Your task to perform on an android device: Open the phone app and click the voicemail tab. Image 0: 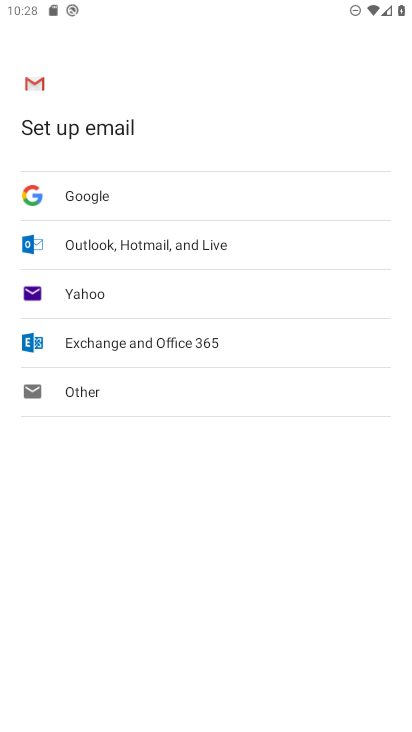
Step 0: press home button
Your task to perform on an android device: Open the phone app and click the voicemail tab. Image 1: 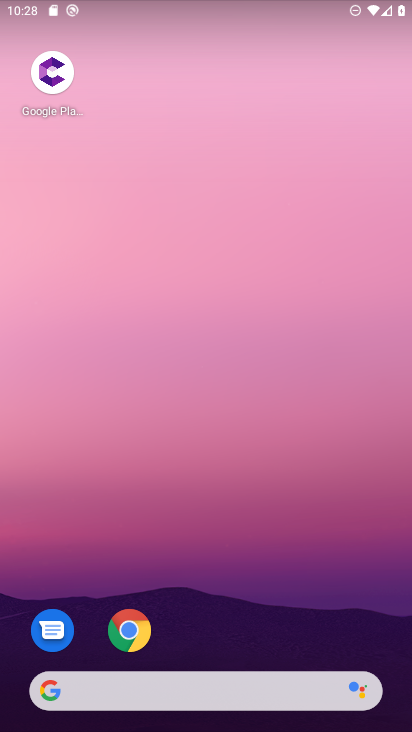
Step 1: drag from (205, 696) to (242, 9)
Your task to perform on an android device: Open the phone app and click the voicemail tab. Image 2: 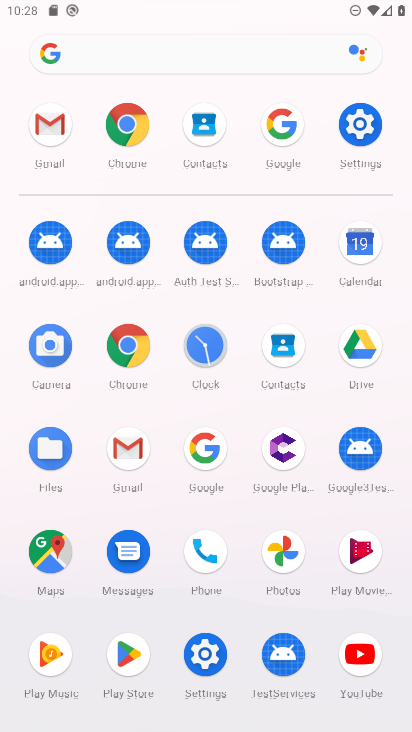
Step 2: click (204, 556)
Your task to perform on an android device: Open the phone app and click the voicemail tab. Image 3: 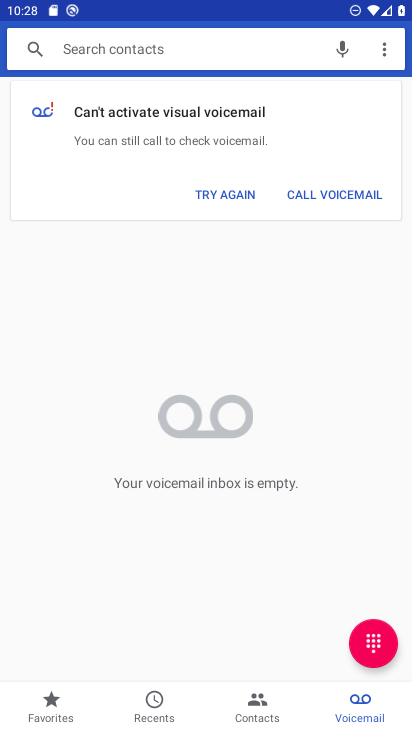
Step 3: click (375, 701)
Your task to perform on an android device: Open the phone app and click the voicemail tab. Image 4: 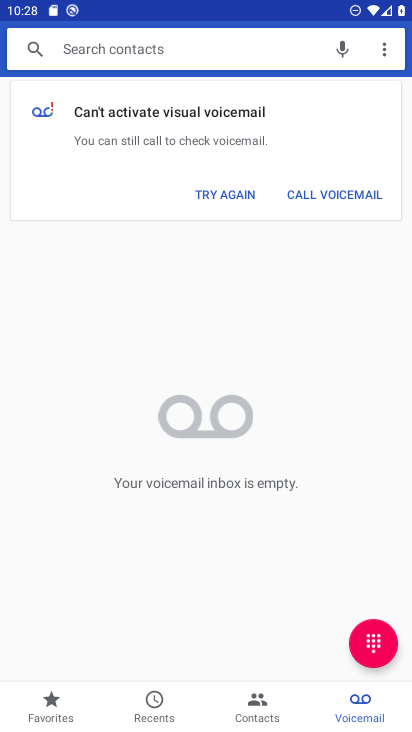
Step 4: task complete